Your task to perform on an android device: delete the emails in spam in the gmail app Image 0: 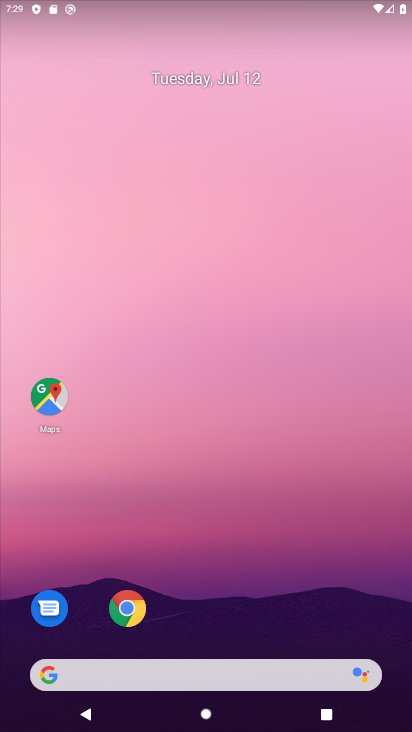
Step 0: drag from (232, 681) to (212, 68)
Your task to perform on an android device: delete the emails in spam in the gmail app Image 1: 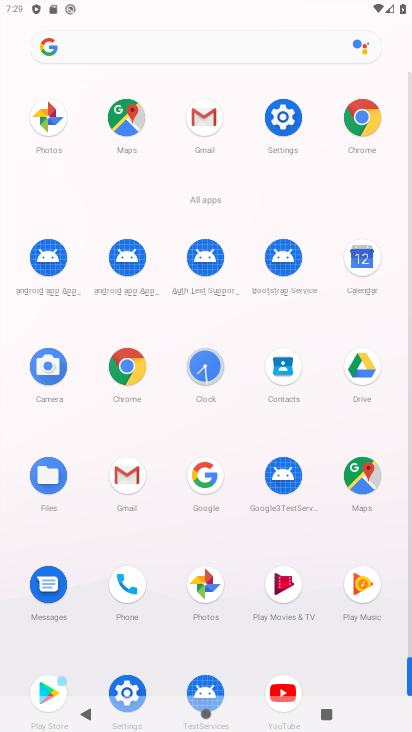
Step 1: click (203, 109)
Your task to perform on an android device: delete the emails in spam in the gmail app Image 2: 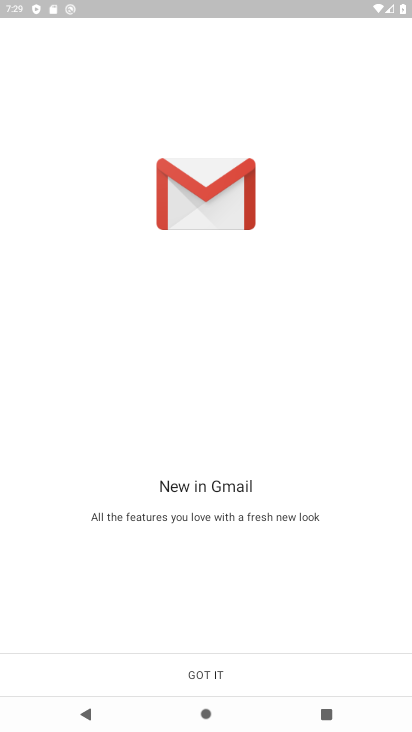
Step 2: click (215, 671)
Your task to perform on an android device: delete the emails in spam in the gmail app Image 3: 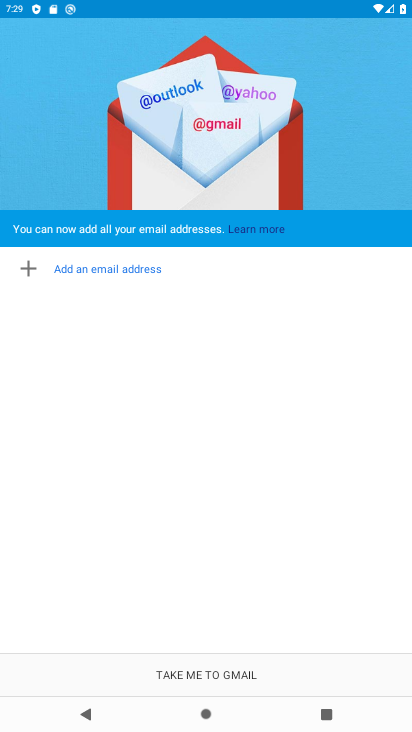
Step 3: click (215, 671)
Your task to perform on an android device: delete the emails in spam in the gmail app Image 4: 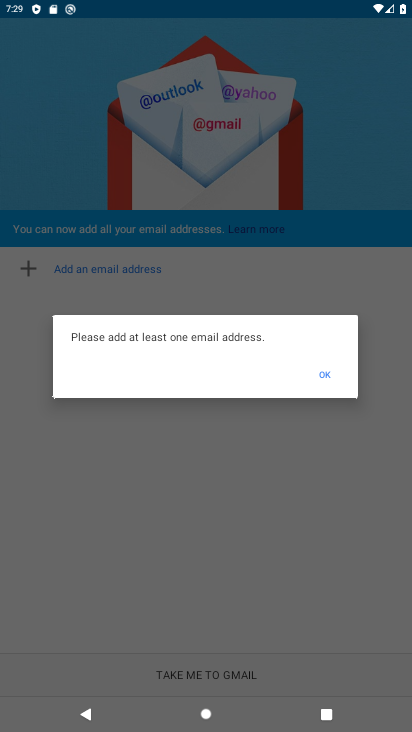
Step 4: click (318, 364)
Your task to perform on an android device: delete the emails in spam in the gmail app Image 5: 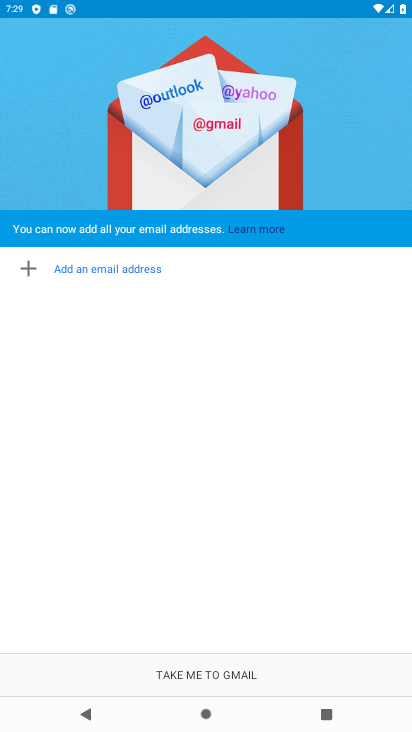
Step 5: click (237, 669)
Your task to perform on an android device: delete the emails in spam in the gmail app Image 6: 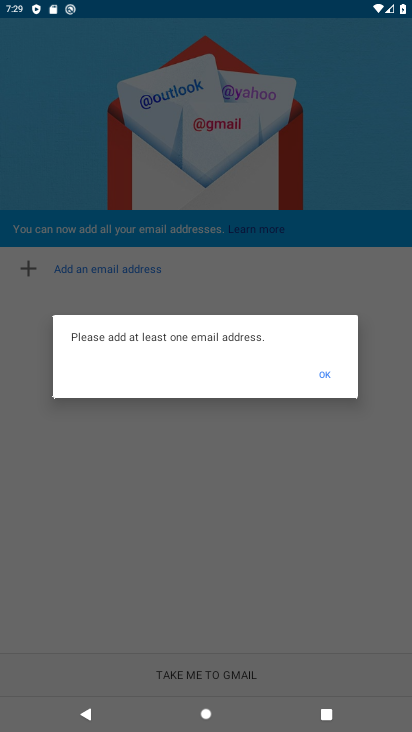
Step 6: click (325, 374)
Your task to perform on an android device: delete the emails in spam in the gmail app Image 7: 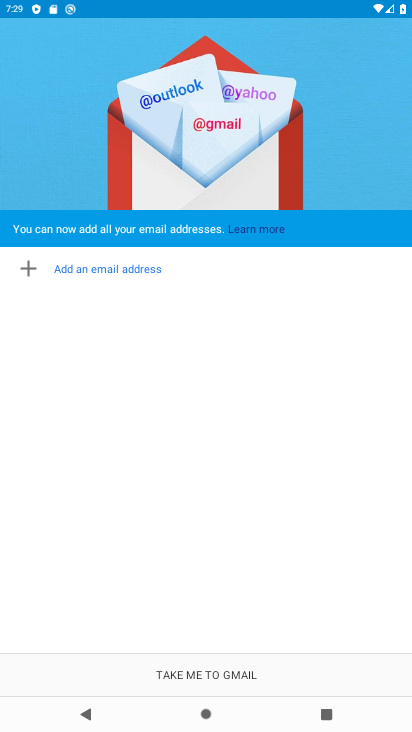
Step 7: click (189, 664)
Your task to perform on an android device: delete the emails in spam in the gmail app Image 8: 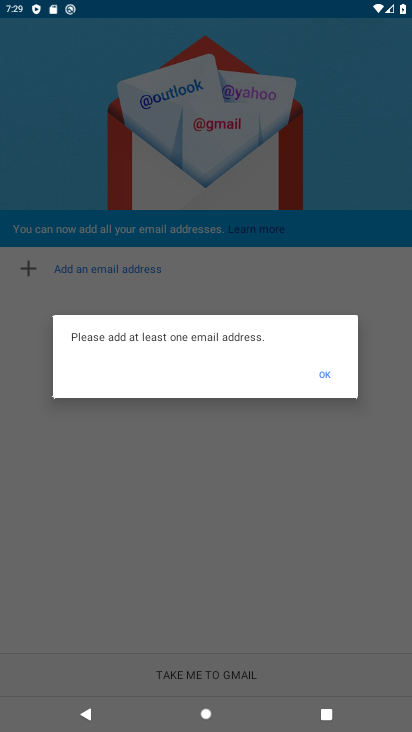
Step 8: task complete